Your task to perform on an android device: turn on the 24-hour format for clock Image 0: 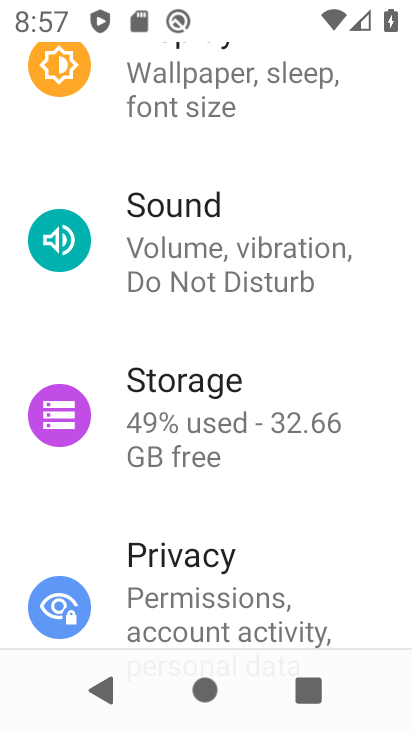
Step 0: press home button
Your task to perform on an android device: turn on the 24-hour format for clock Image 1: 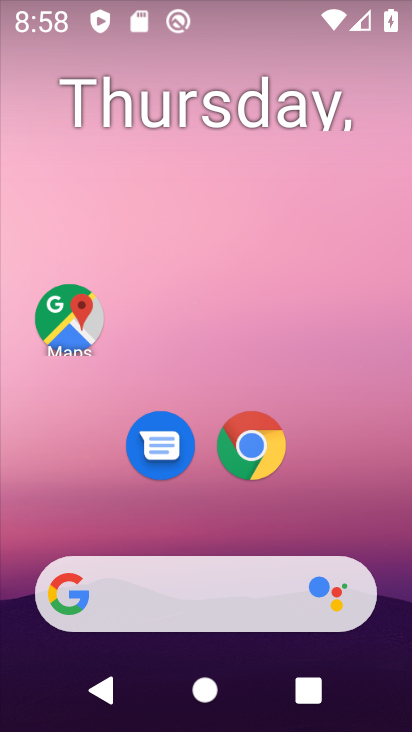
Step 1: drag from (30, 584) to (316, 60)
Your task to perform on an android device: turn on the 24-hour format for clock Image 2: 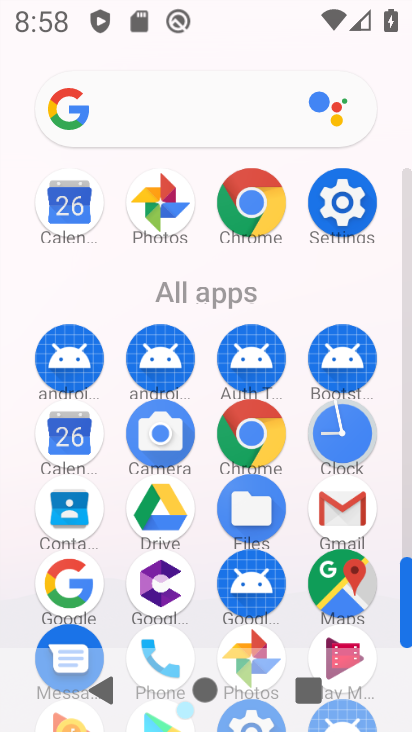
Step 2: click (364, 433)
Your task to perform on an android device: turn on the 24-hour format for clock Image 3: 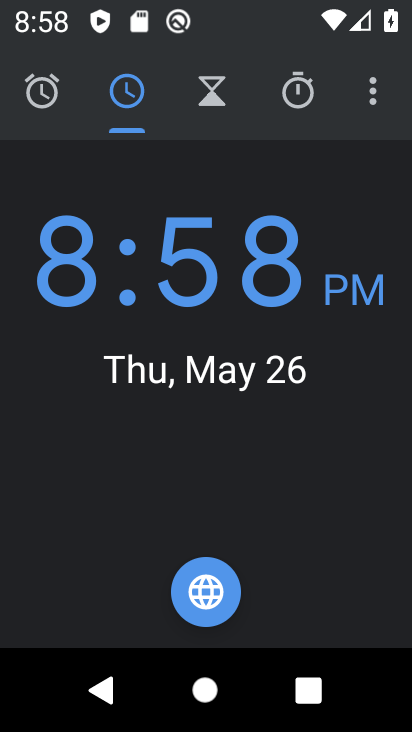
Step 3: click (372, 91)
Your task to perform on an android device: turn on the 24-hour format for clock Image 4: 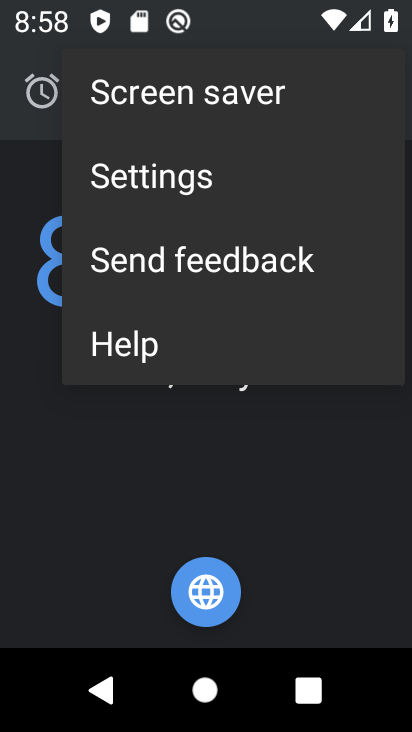
Step 4: click (193, 178)
Your task to perform on an android device: turn on the 24-hour format for clock Image 5: 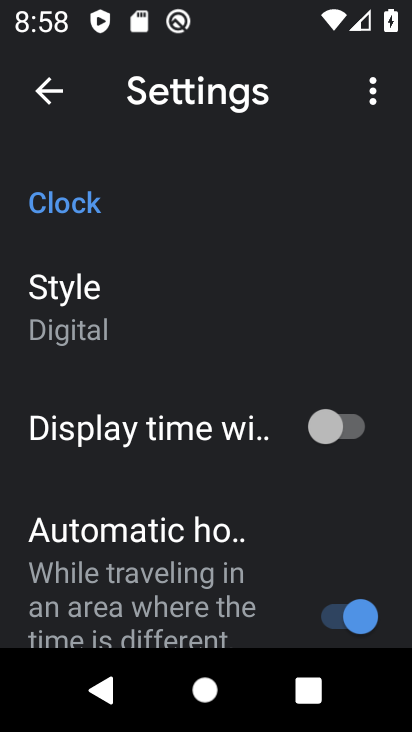
Step 5: drag from (20, 474) to (168, 173)
Your task to perform on an android device: turn on the 24-hour format for clock Image 6: 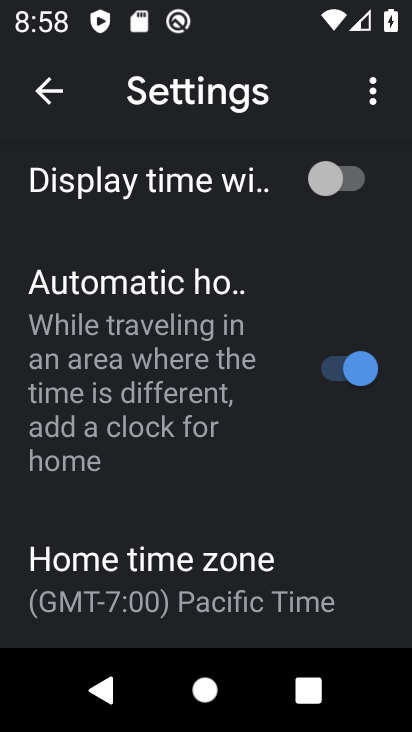
Step 6: drag from (38, 496) to (222, 160)
Your task to perform on an android device: turn on the 24-hour format for clock Image 7: 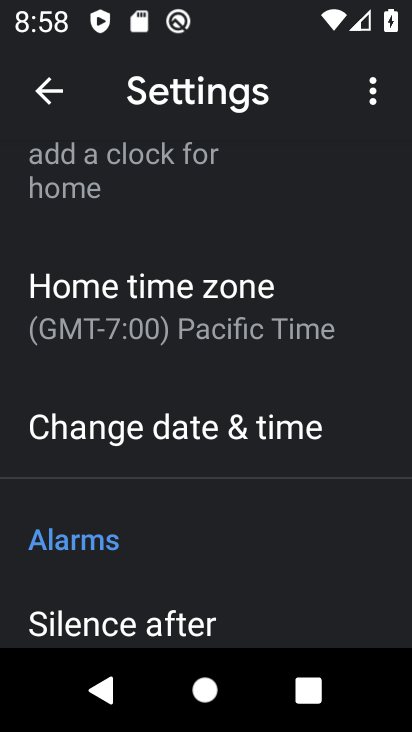
Step 7: click (192, 432)
Your task to perform on an android device: turn on the 24-hour format for clock Image 8: 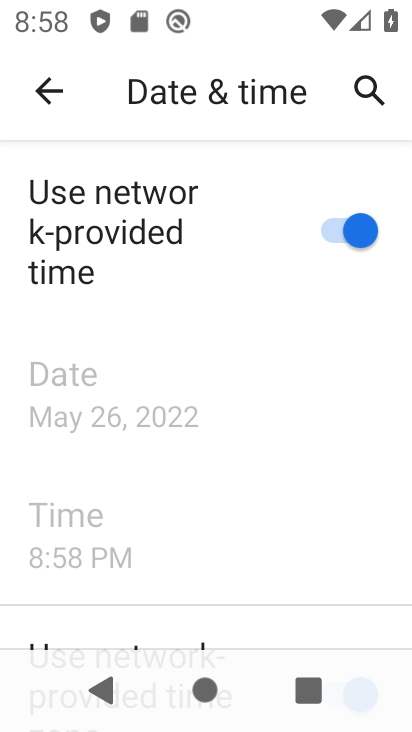
Step 8: drag from (23, 422) to (204, 144)
Your task to perform on an android device: turn on the 24-hour format for clock Image 9: 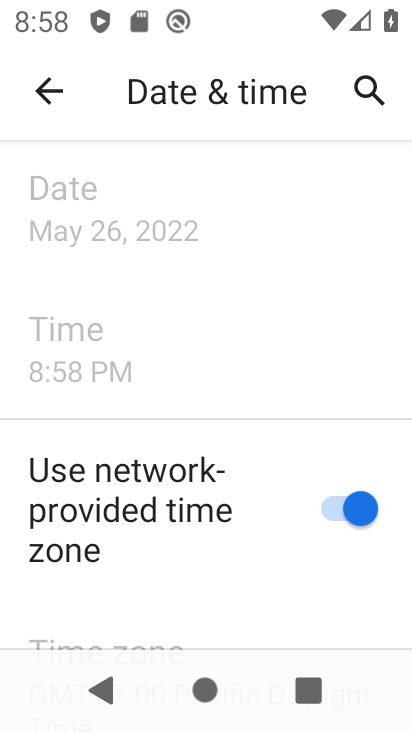
Step 9: drag from (31, 506) to (242, 239)
Your task to perform on an android device: turn on the 24-hour format for clock Image 10: 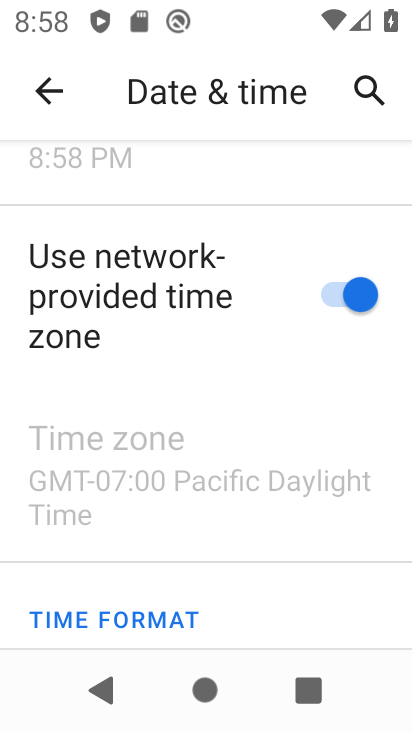
Step 10: drag from (15, 502) to (203, 189)
Your task to perform on an android device: turn on the 24-hour format for clock Image 11: 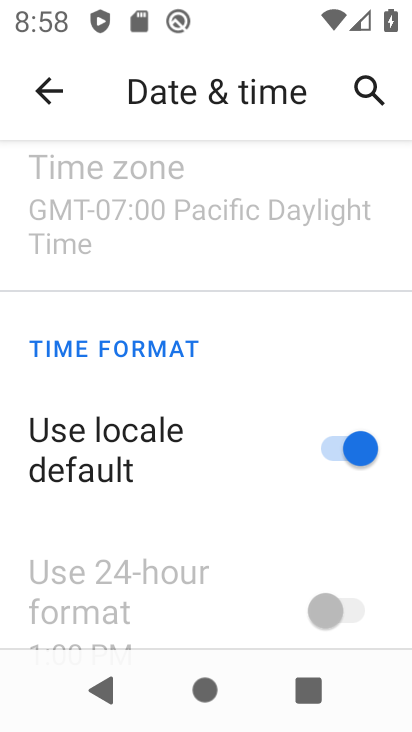
Step 11: drag from (12, 553) to (253, 225)
Your task to perform on an android device: turn on the 24-hour format for clock Image 12: 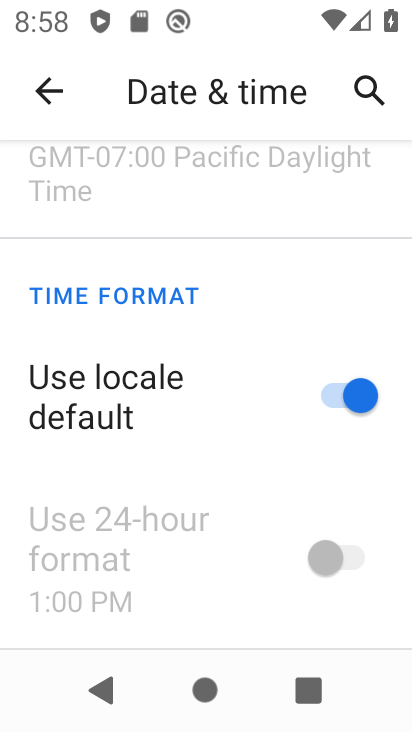
Step 12: click (373, 388)
Your task to perform on an android device: turn on the 24-hour format for clock Image 13: 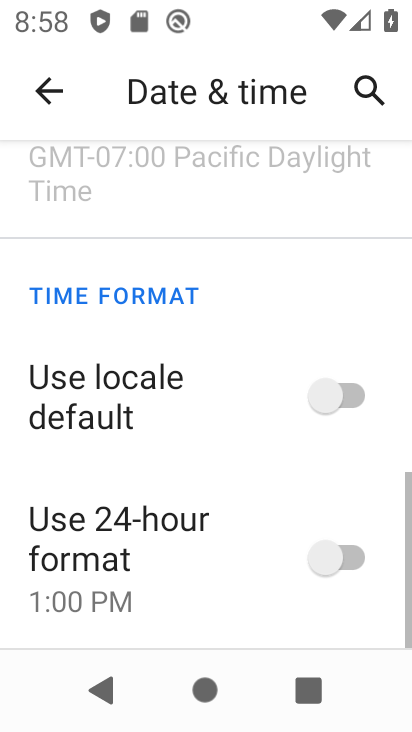
Step 13: click (339, 557)
Your task to perform on an android device: turn on the 24-hour format for clock Image 14: 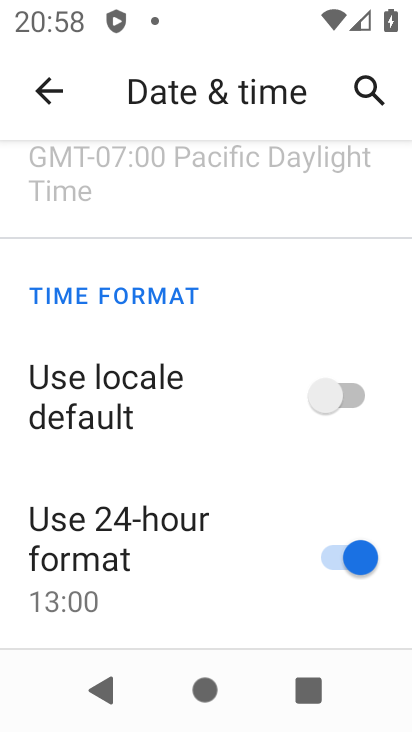
Step 14: task complete